Your task to perform on an android device: Google the capital of Panama Image 0: 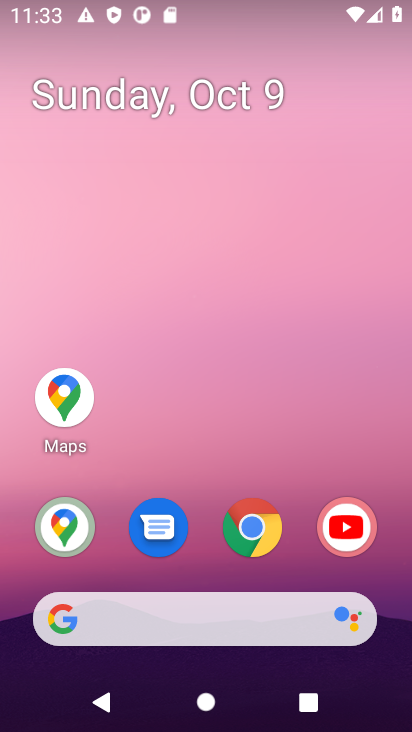
Step 0: click (201, 317)
Your task to perform on an android device: Google the capital of Panama Image 1: 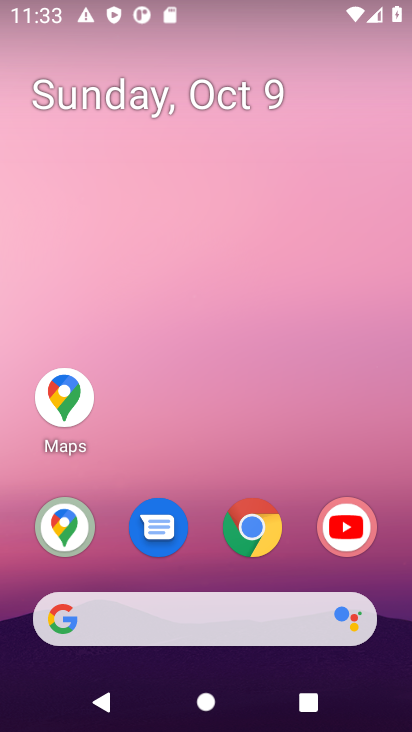
Step 1: click (247, 539)
Your task to perform on an android device: Google the capital of Panama Image 2: 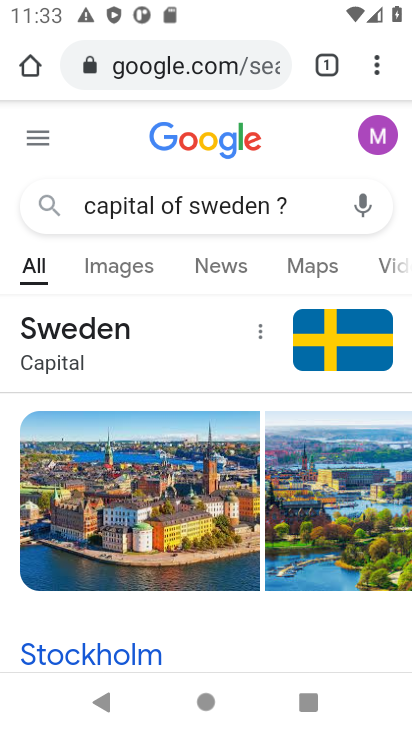
Step 2: click (175, 54)
Your task to perform on an android device: Google the capital of Panama Image 3: 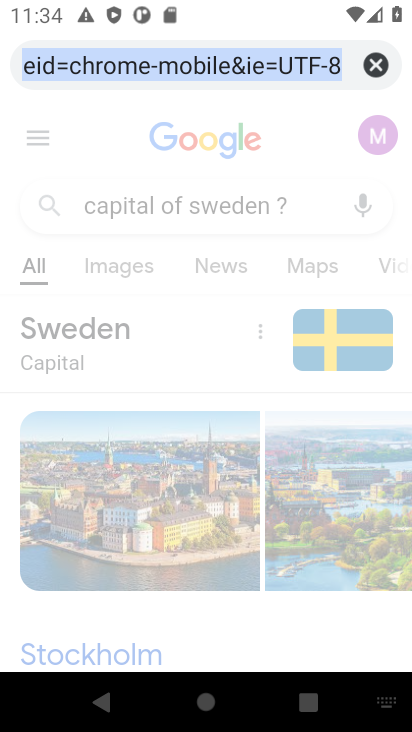
Step 3: type "capital of panama"
Your task to perform on an android device: Google the capital of Panama Image 4: 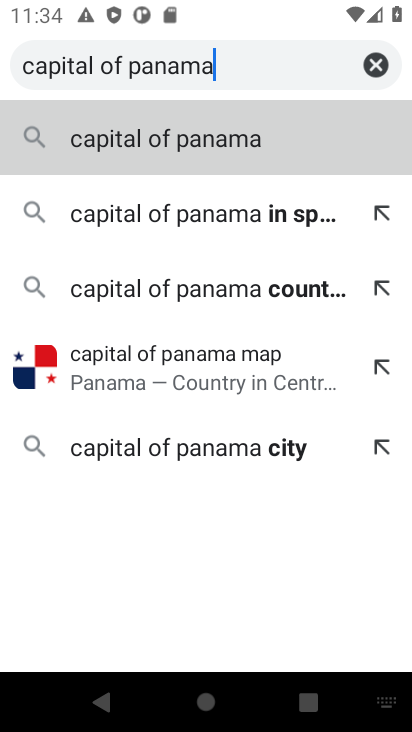
Step 4: click (221, 143)
Your task to perform on an android device: Google the capital of Panama Image 5: 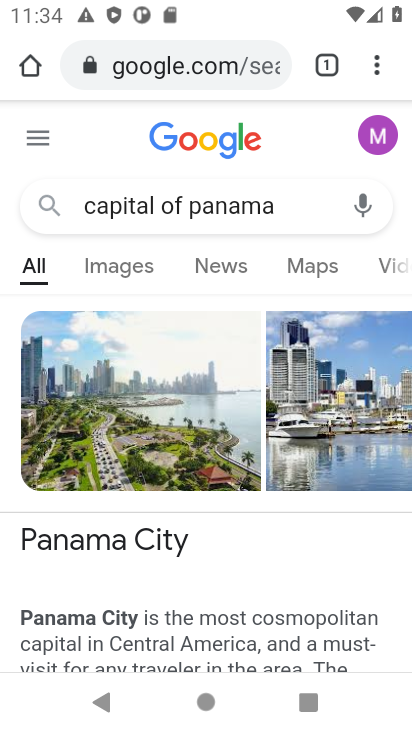
Step 5: task complete